Your task to perform on an android device: Open privacy settings Image 0: 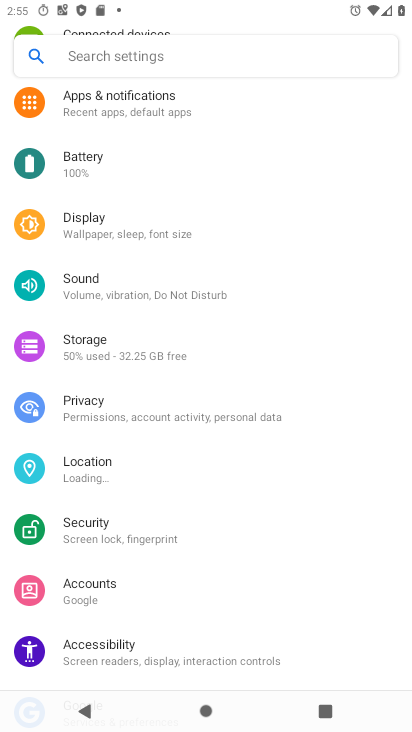
Step 0: press home button
Your task to perform on an android device: Open privacy settings Image 1: 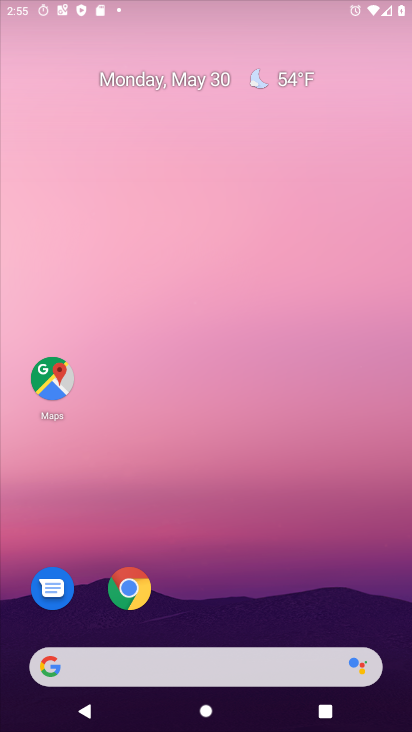
Step 1: drag from (221, 574) to (238, 0)
Your task to perform on an android device: Open privacy settings Image 2: 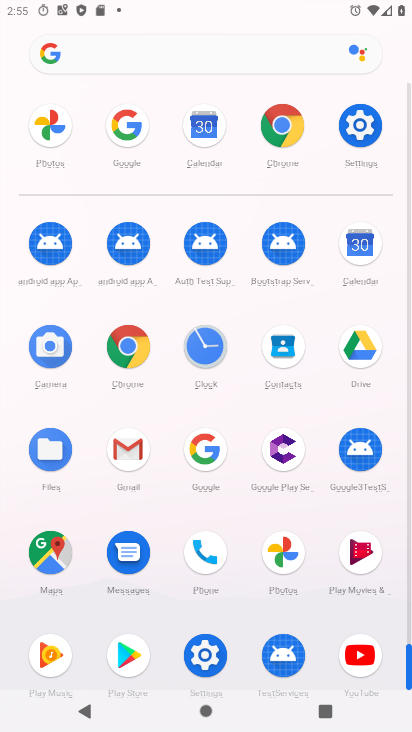
Step 2: click (356, 119)
Your task to perform on an android device: Open privacy settings Image 3: 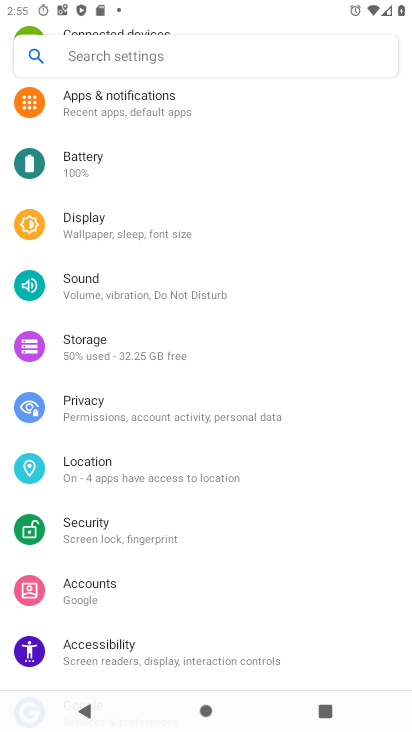
Step 3: click (94, 413)
Your task to perform on an android device: Open privacy settings Image 4: 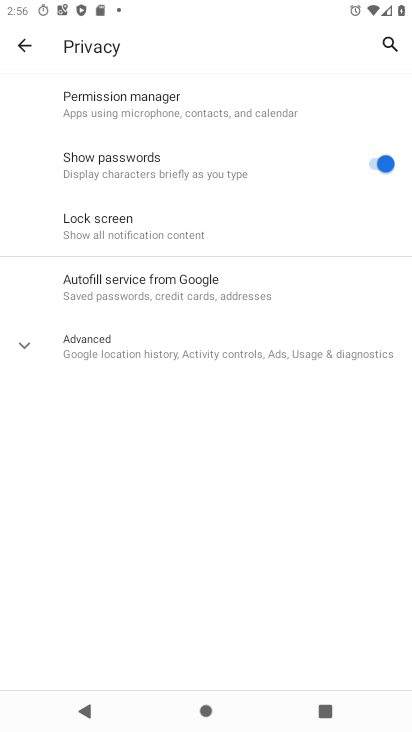
Step 4: task complete